Your task to perform on an android device: Open the Play Movies app and select the watchlist tab. Image 0: 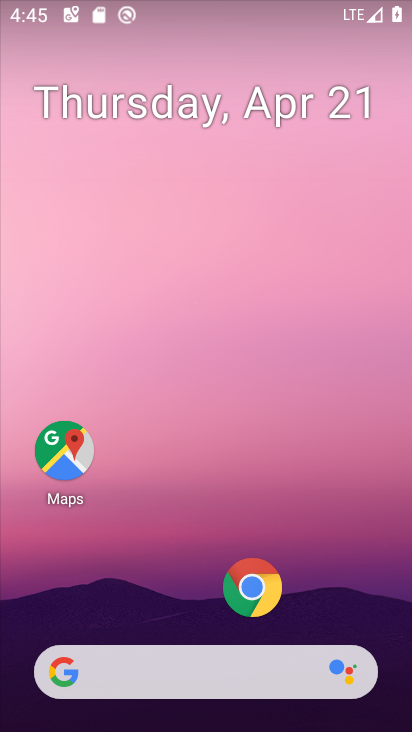
Step 0: drag from (150, 616) to (259, 84)
Your task to perform on an android device: Open the Play Movies app and select the watchlist tab. Image 1: 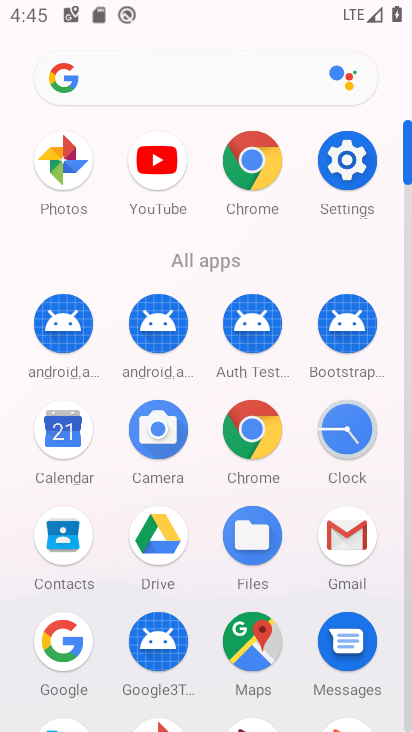
Step 1: drag from (309, 659) to (392, 338)
Your task to perform on an android device: Open the Play Movies app and select the watchlist tab. Image 2: 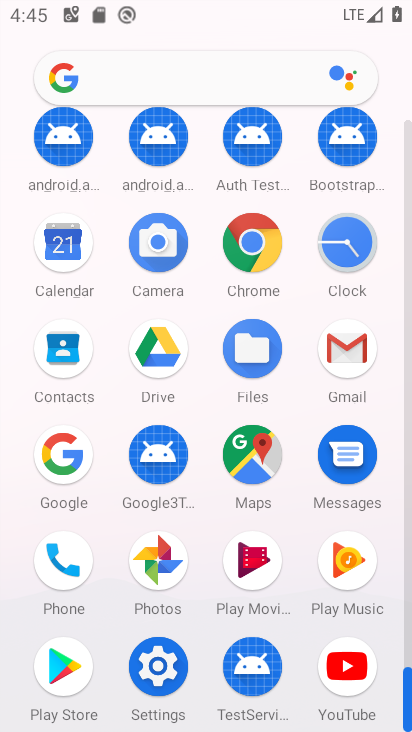
Step 2: click (263, 552)
Your task to perform on an android device: Open the Play Movies app and select the watchlist tab. Image 3: 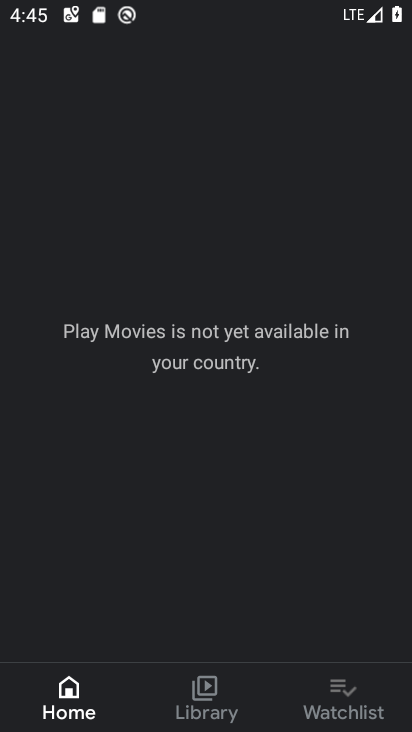
Step 3: click (335, 706)
Your task to perform on an android device: Open the Play Movies app and select the watchlist tab. Image 4: 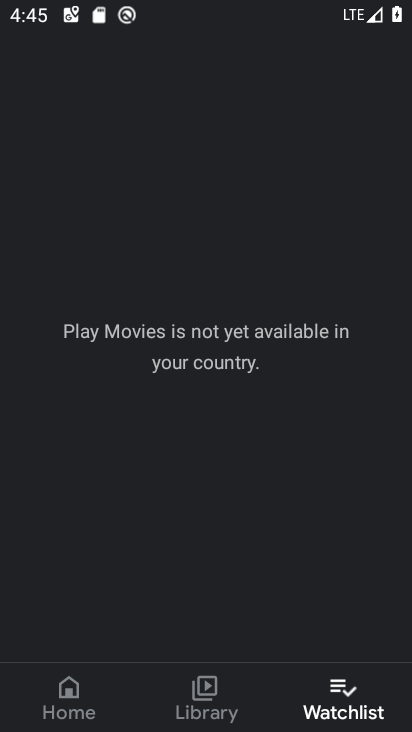
Step 4: task complete